Your task to perform on an android device: turn on wifi Image 0: 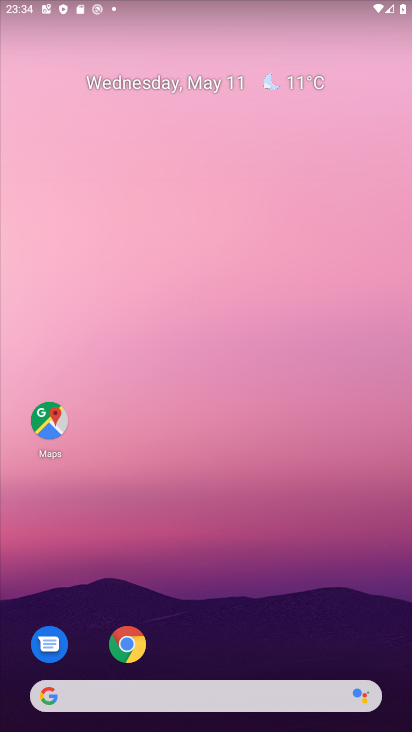
Step 0: press home button
Your task to perform on an android device: turn on wifi Image 1: 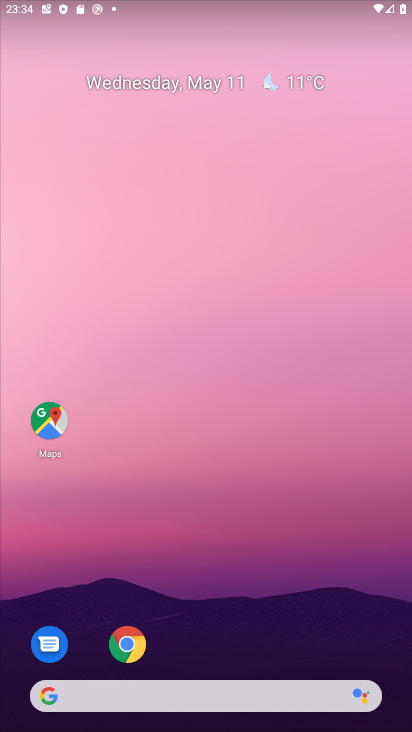
Step 1: drag from (202, 666) to (213, 47)
Your task to perform on an android device: turn on wifi Image 2: 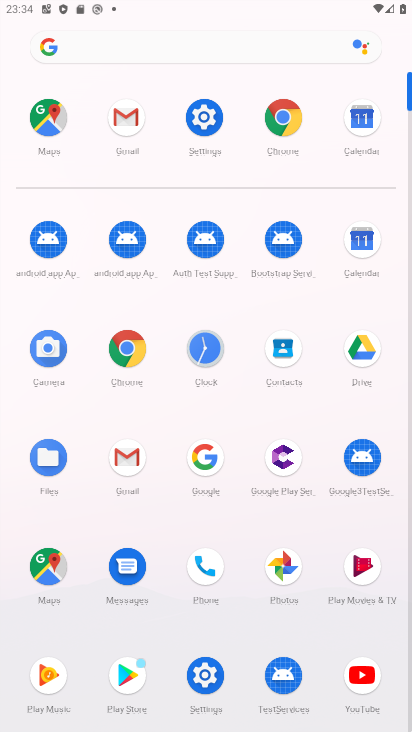
Step 2: click (199, 106)
Your task to perform on an android device: turn on wifi Image 3: 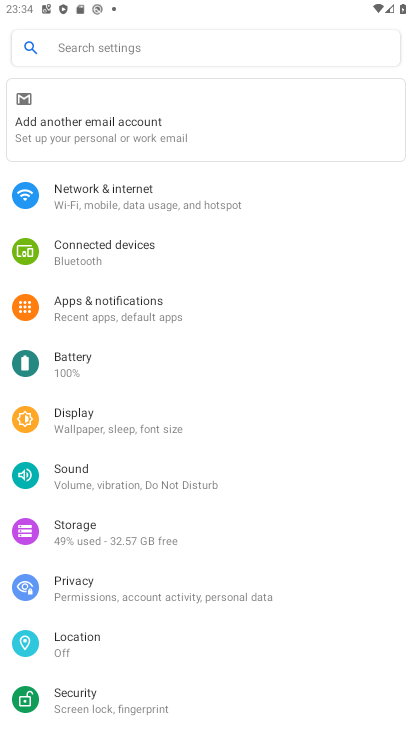
Step 3: click (157, 191)
Your task to perform on an android device: turn on wifi Image 4: 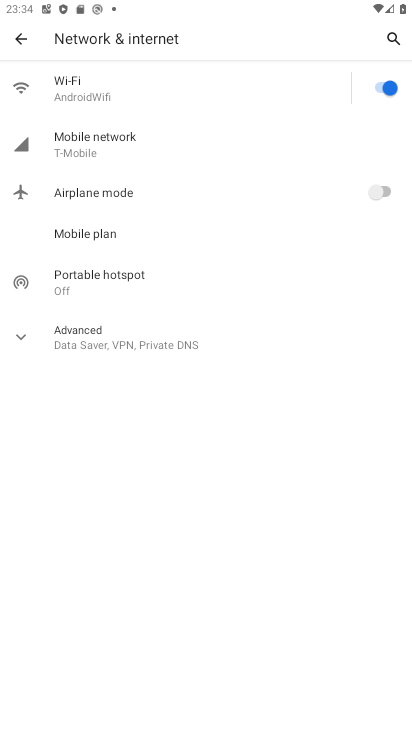
Step 4: task complete